Your task to perform on an android device: change the clock display to digital Image 0: 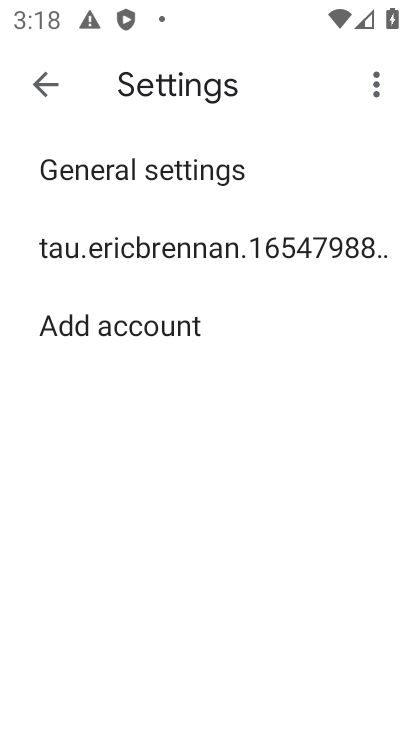
Step 0: press home button
Your task to perform on an android device: change the clock display to digital Image 1: 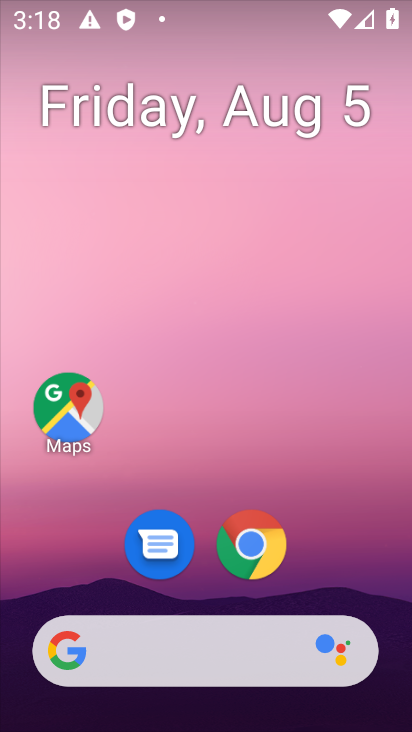
Step 1: drag from (220, 630) to (208, 280)
Your task to perform on an android device: change the clock display to digital Image 2: 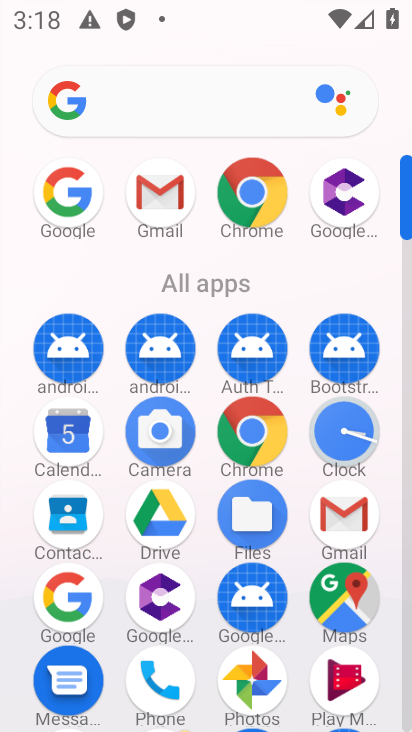
Step 2: click (341, 425)
Your task to perform on an android device: change the clock display to digital Image 3: 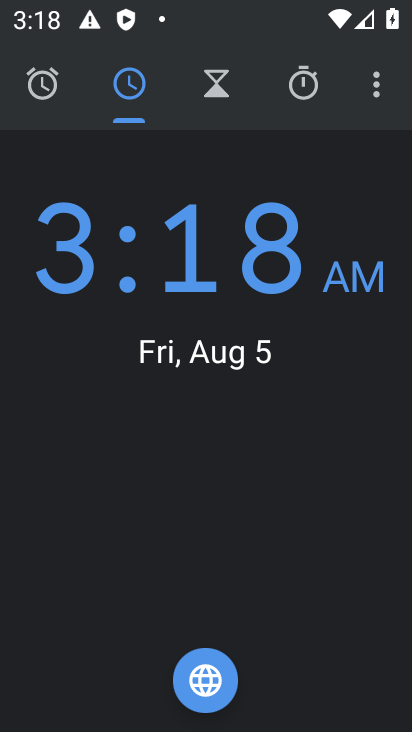
Step 3: click (367, 98)
Your task to perform on an android device: change the clock display to digital Image 4: 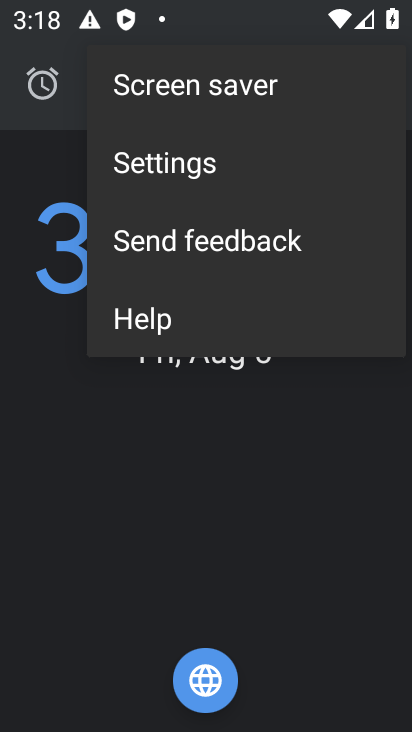
Step 4: click (189, 165)
Your task to perform on an android device: change the clock display to digital Image 5: 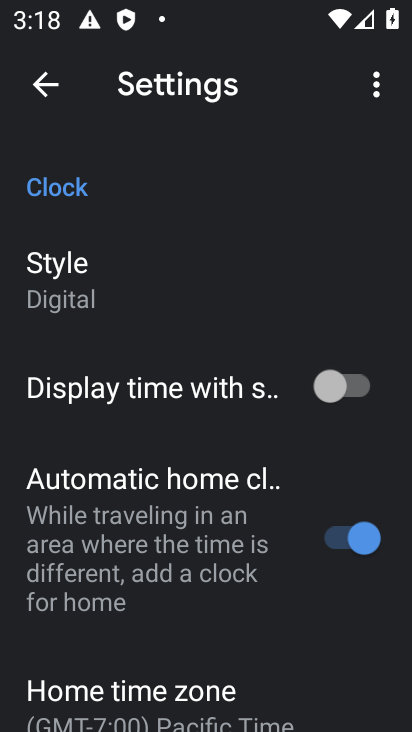
Step 5: task complete